Your task to perform on an android device: check storage Image 0: 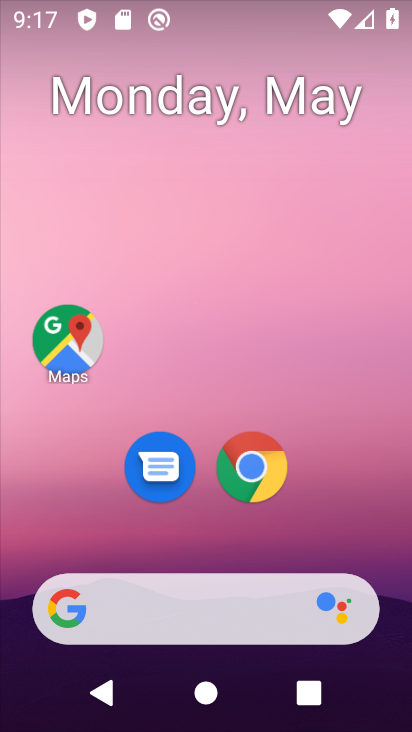
Step 0: drag from (99, 575) to (195, 120)
Your task to perform on an android device: check storage Image 1: 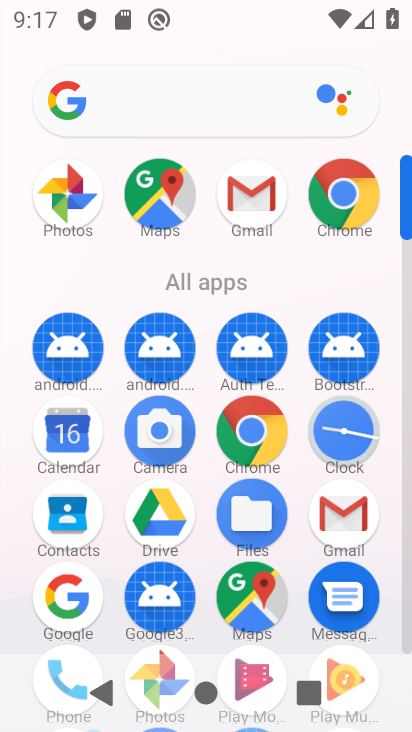
Step 1: drag from (211, 591) to (262, 285)
Your task to perform on an android device: check storage Image 2: 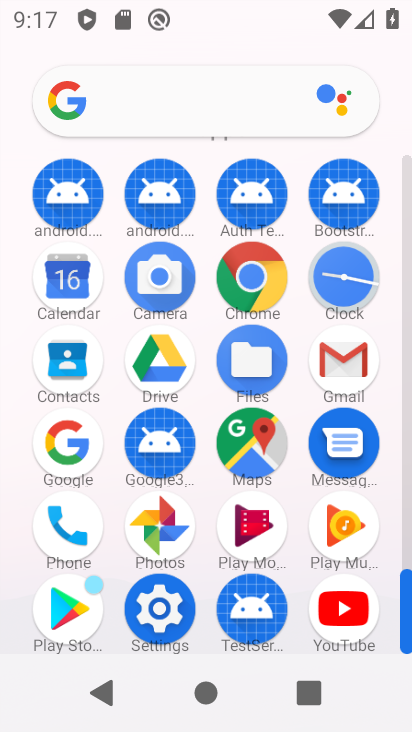
Step 2: click (162, 620)
Your task to perform on an android device: check storage Image 3: 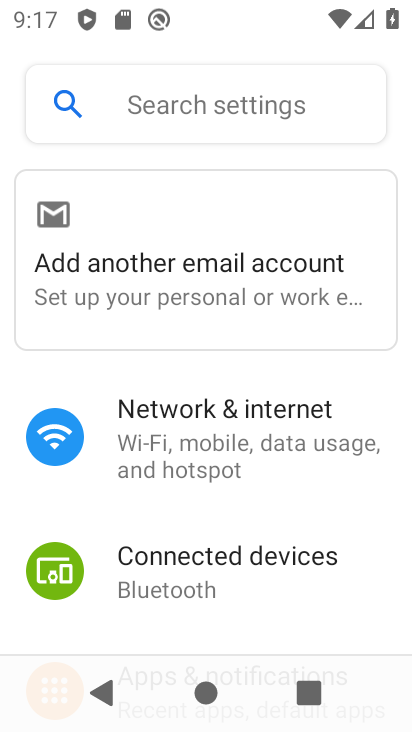
Step 3: drag from (168, 591) to (285, 148)
Your task to perform on an android device: check storage Image 4: 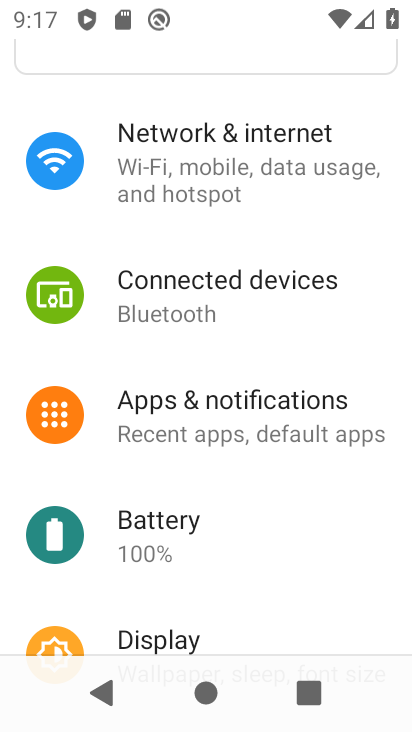
Step 4: drag from (246, 537) to (323, 279)
Your task to perform on an android device: check storage Image 5: 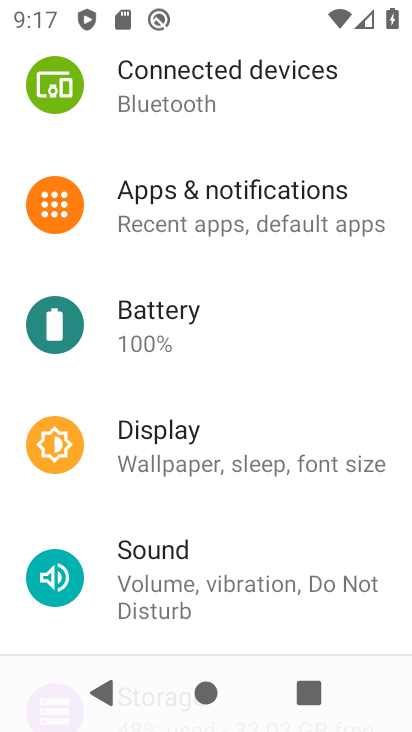
Step 5: drag from (191, 554) to (280, 203)
Your task to perform on an android device: check storage Image 6: 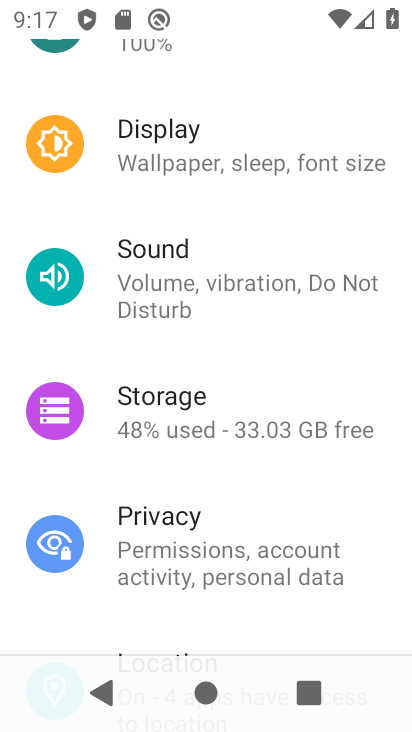
Step 6: click (187, 409)
Your task to perform on an android device: check storage Image 7: 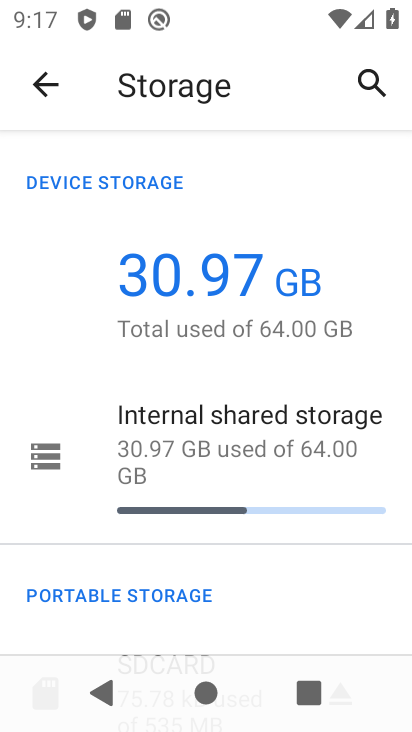
Step 7: task complete